Your task to perform on an android device: Go to notification settings Image 0: 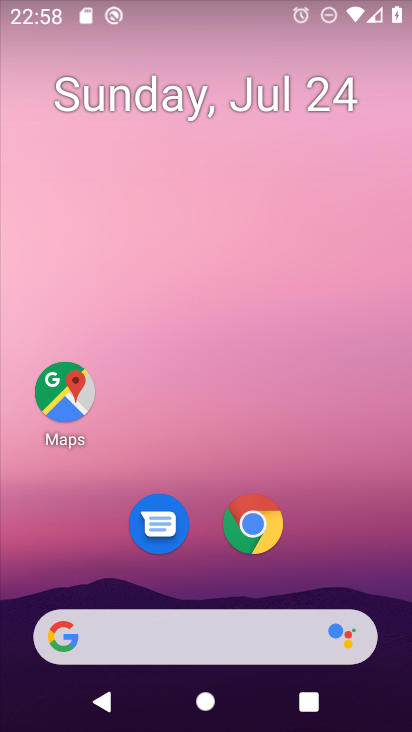
Step 0: drag from (204, 645) to (366, 48)
Your task to perform on an android device: Go to notification settings Image 1: 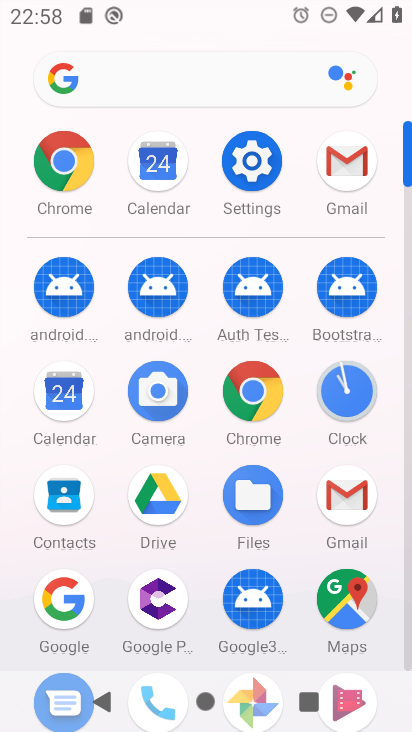
Step 1: click (247, 175)
Your task to perform on an android device: Go to notification settings Image 2: 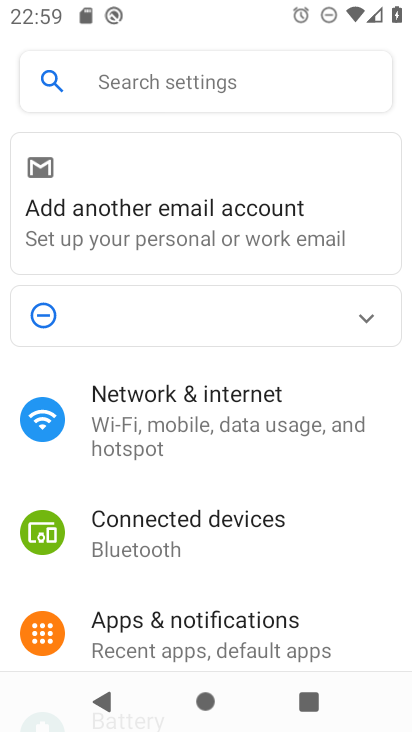
Step 2: click (211, 625)
Your task to perform on an android device: Go to notification settings Image 3: 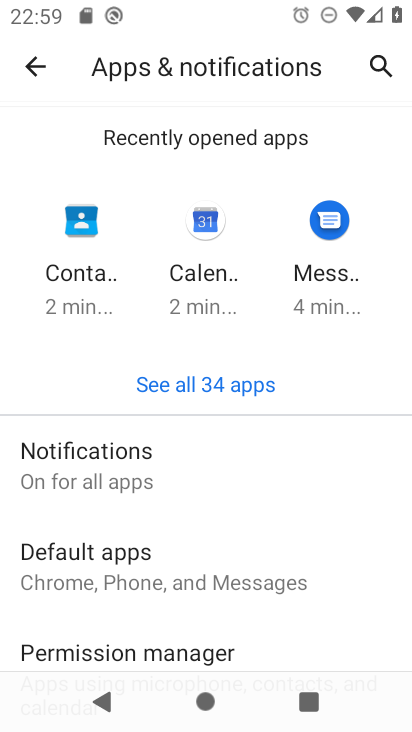
Step 3: click (130, 459)
Your task to perform on an android device: Go to notification settings Image 4: 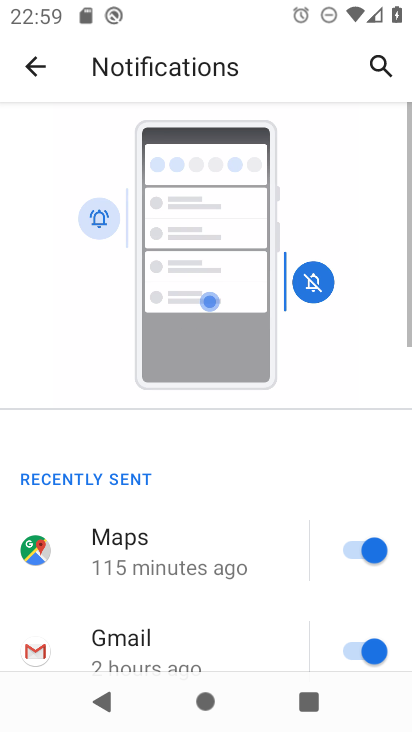
Step 4: task complete